Your task to perform on an android device: add a label to a message in the gmail app Image 0: 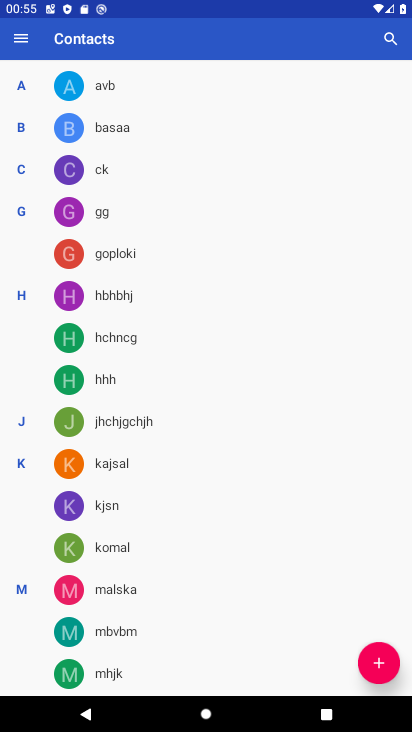
Step 0: press home button
Your task to perform on an android device: add a label to a message in the gmail app Image 1: 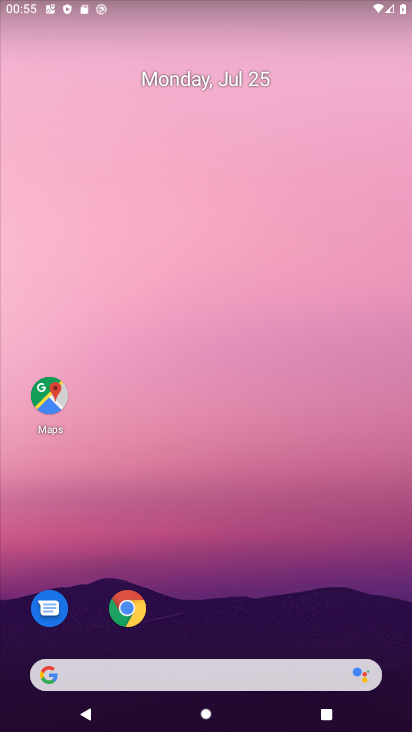
Step 1: drag from (219, 659) to (268, 20)
Your task to perform on an android device: add a label to a message in the gmail app Image 2: 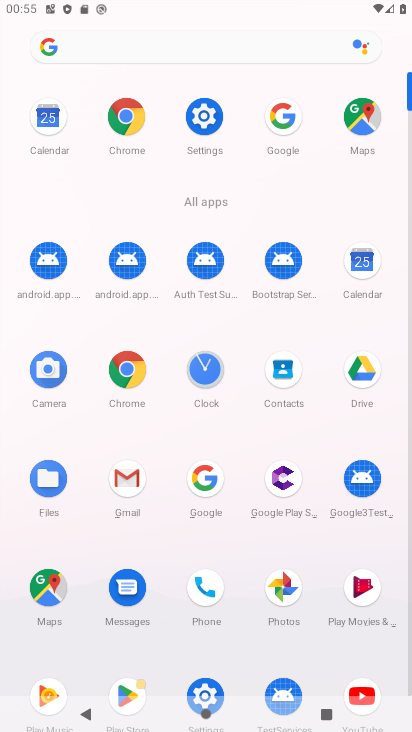
Step 2: click (140, 480)
Your task to perform on an android device: add a label to a message in the gmail app Image 3: 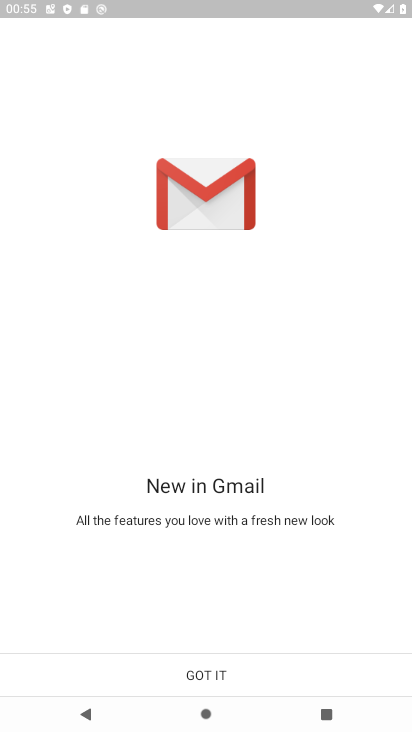
Step 3: click (248, 670)
Your task to perform on an android device: add a label to a message in the gmail app Image 4: 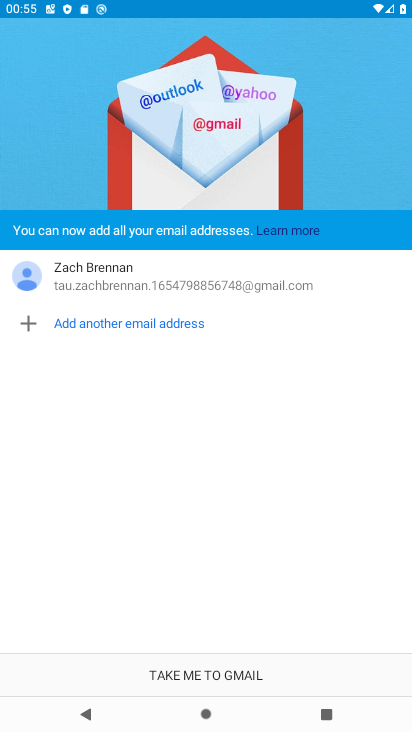
Step 4: click (164, 659)
Your task to perform on an android device: add a label to a message in the gmail app Image 5: 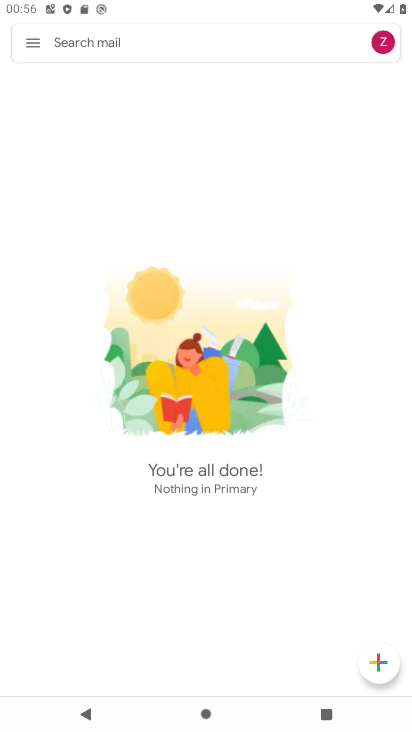
Step 5: click (29, 38)
Your task to perform on an android device: add a label to a message in the gmail app Image 6: 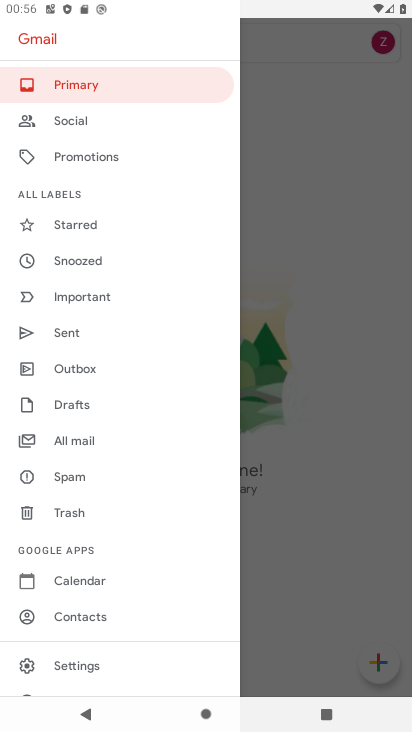
Step 6: click (263, 127)
Your task to perform on an android device: add a label to a message in the gmail app Image 7: 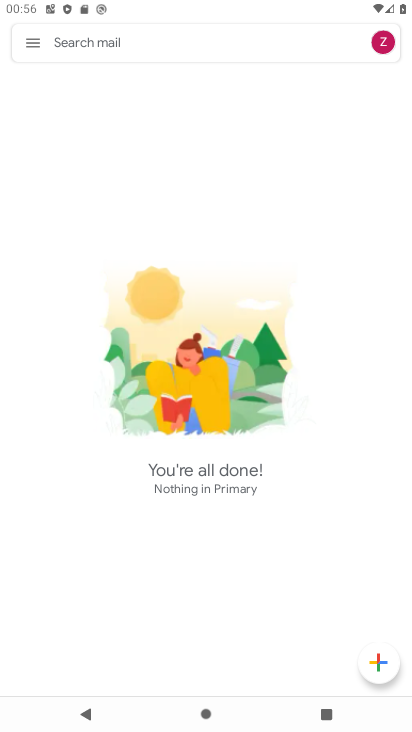
Step 7: task complete